Your task to perform on an android device: toggle pop-ups in chrome Image 0: 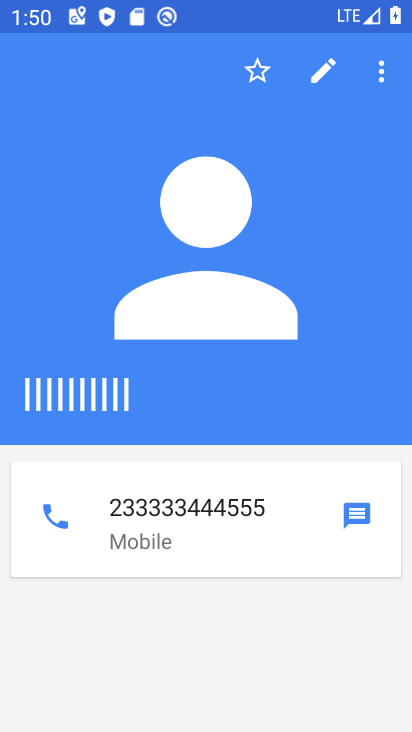
Step 0: press home button
Your task to perform on an android device: toggle pop-ups in chrome Image 1: 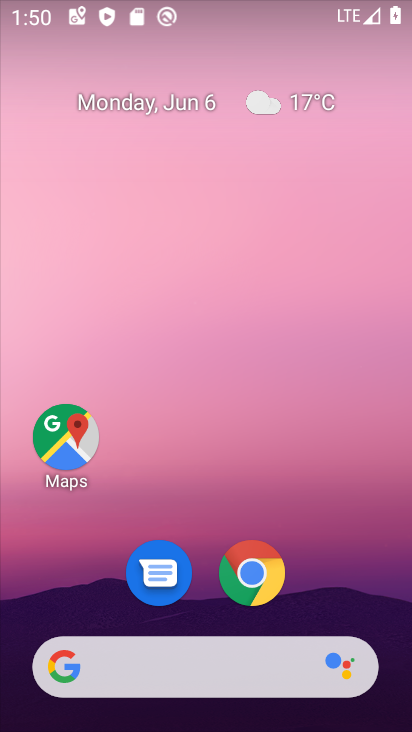
Step 1: drag from (372, 612) to (373, 279)
Your task to perform on an android device: toggle pop-ups in chrome Image 2: 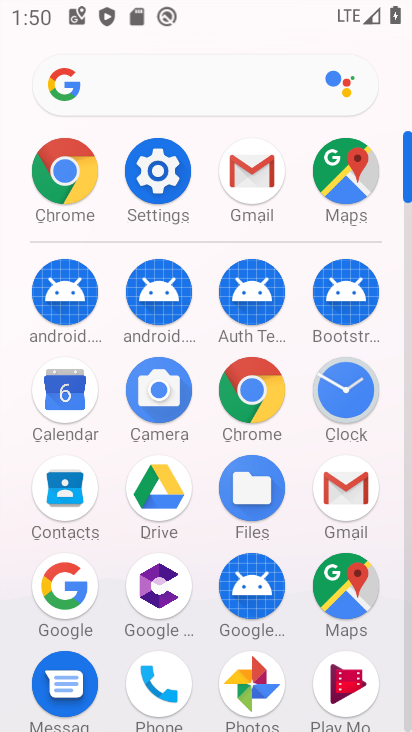
Step 2: click (250, 383)
Your task to perform on an android device: toggle pop-ups in chrome Image 3: 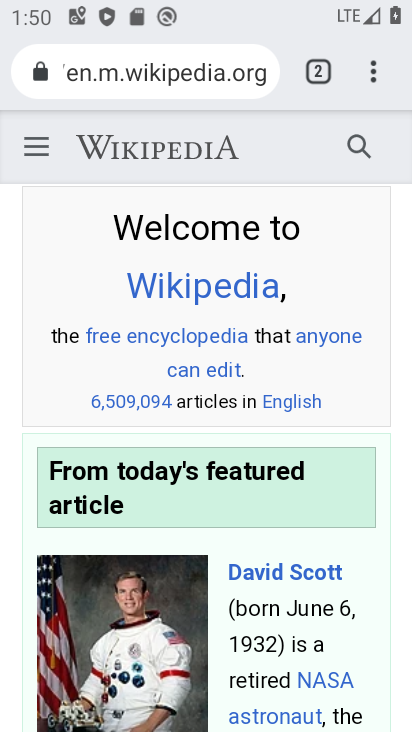
Step 3: click (371, 76)
Your task to perform on an android device: toggle pop-ups in chrome Image 4: 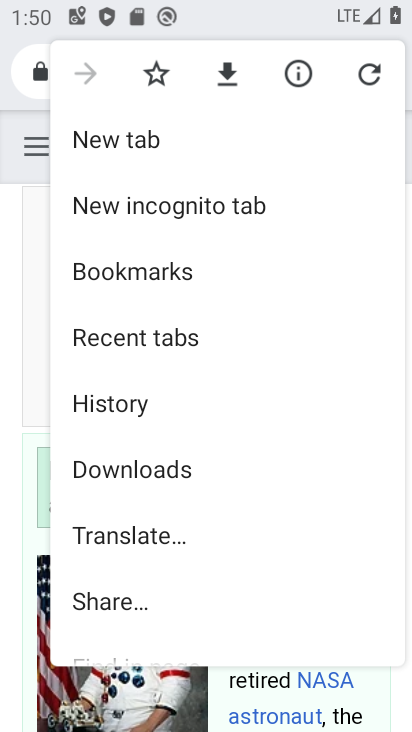
Step 4: drag from (324, 428) to (324, 329)
Your task to perform on an android device: toggle pop-ups in chrome Image 5: 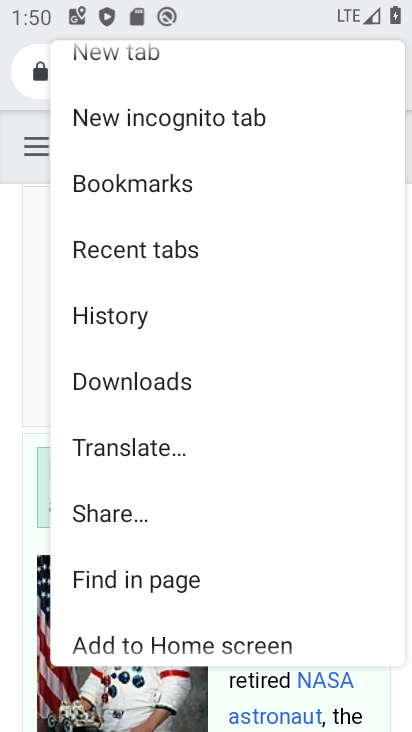
Step 5: drag from (315, 470) to (315, 379)
Your task to perform on an android device: toggle pop-ups in chrome Image 6: 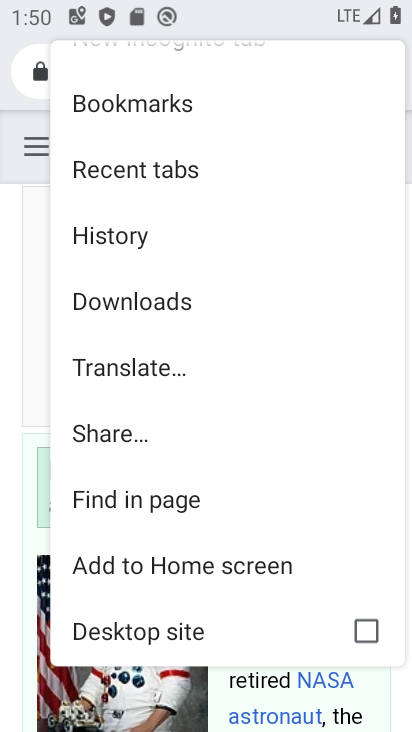
Step 6: drag from (301, 523) to (295, 384)
Your task to perform on an android device: toggle pop-ups in chrome Image 7: 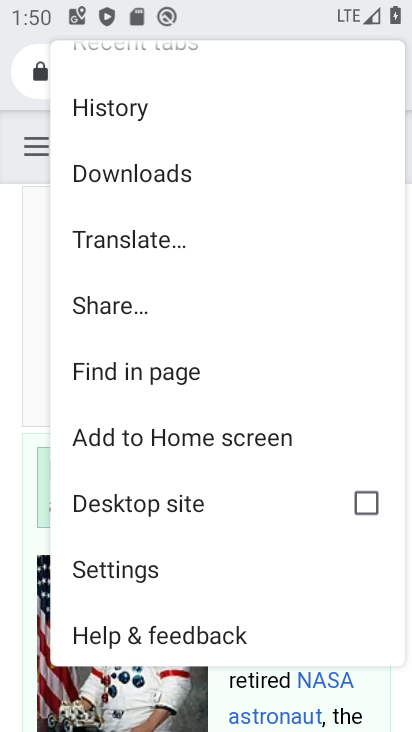
Step 7: click (137, 583)
Your task to perform on an android device: toggle pop-ups in chrome Image 8: 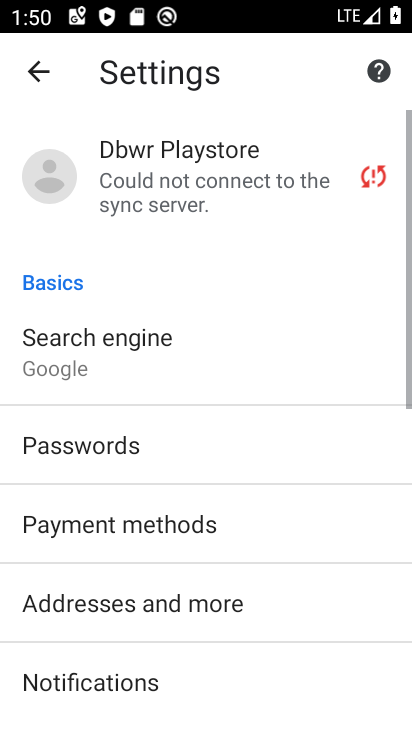
Step 8: drag from (302, 577) to (303, 464)
Your task to perform on an android device: toggle pop-ups in chrome Image 9: 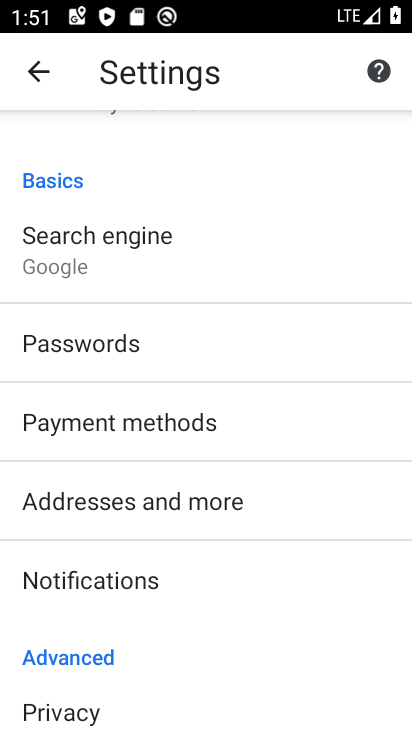
Step 9: drag from (316, 589) to (315, 500)
Your task to perform on an android device: toggle pop-ups in chrome Image 10: 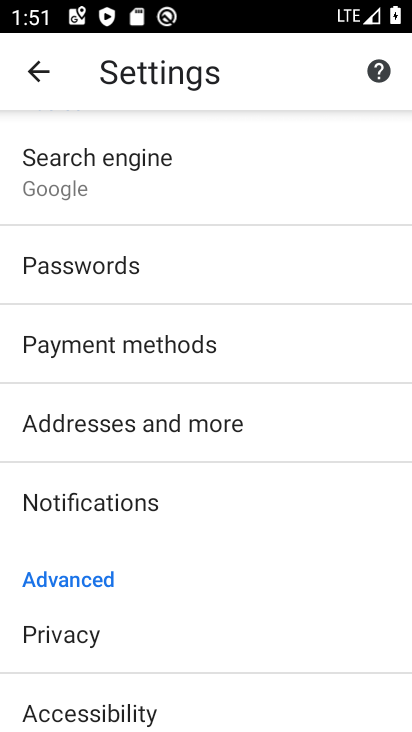
Step 10: drag from (304, 607) to (312, 441)
Your task to perform on an android device: toggle pop-ups in chrome Image 11: 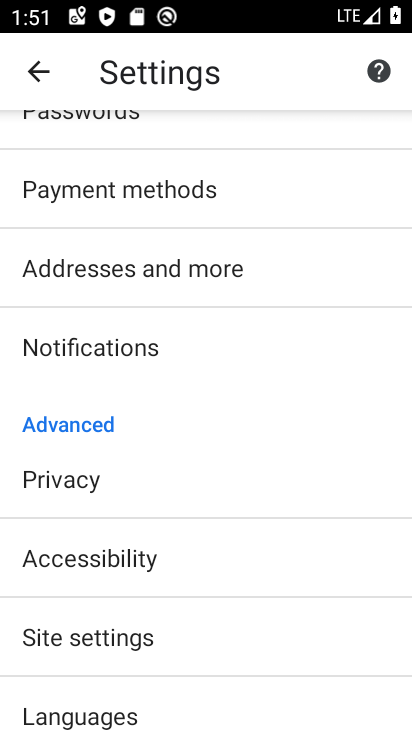
Step 11: click (245, 624)
Your task to perform on an android device: toggle pop-ups in chrome Image 12: 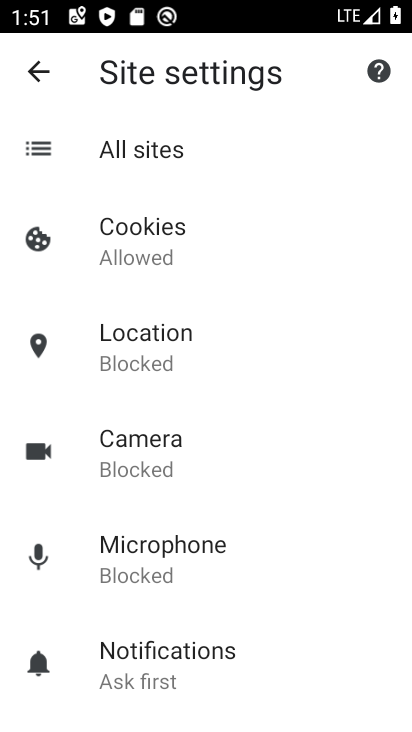
Step 12: drag from (299, 633) to (301, 531)
Your task to perform on an android device: toggle pop-ups in chrome Image 13: 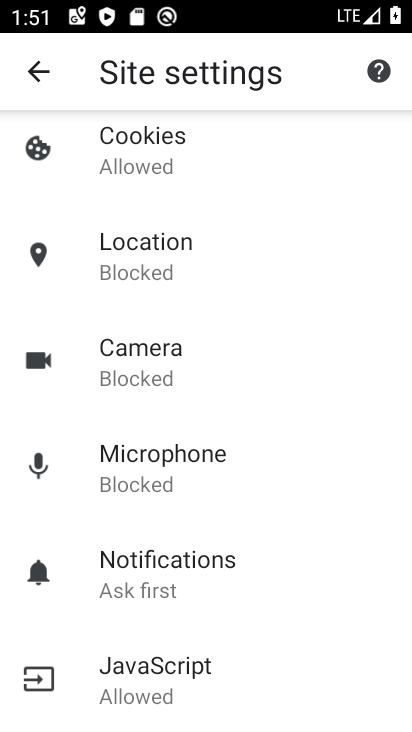
Step 13: drag from (294, 538) to (290, 475)
Your task to perform on an android device: toggle pop-ups in chrome Image 14: 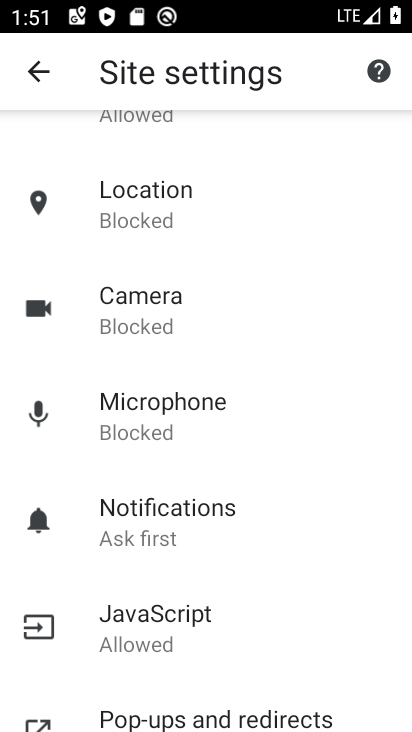
Step 14: drag from (320, 628) to (320, 482)
Your task to perform on an android device: toggle pop-ups in chrome Image 15: 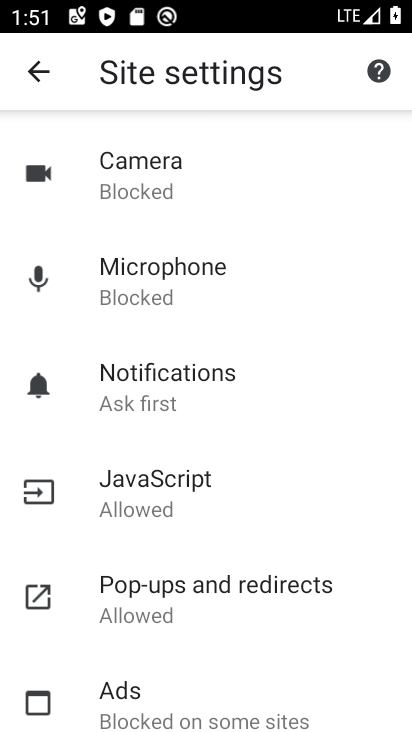
Step 15: click (303, 602)
Your task to perform on an android device: toggle pop-ups in chrome Image 16: 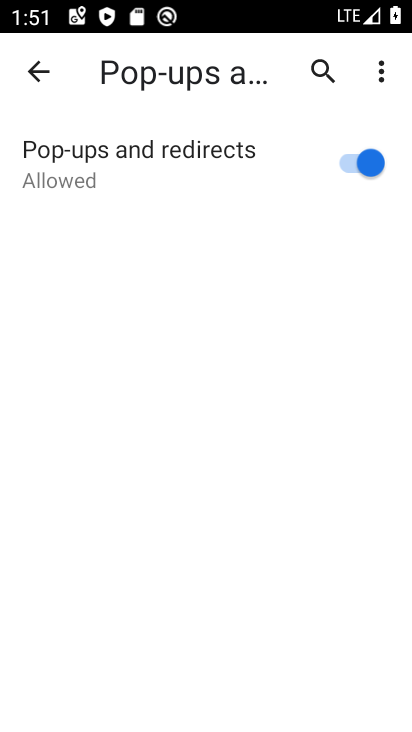
Step 16: click (351, 176)
Your task to perform on an android device: toggle pop-ups in chrome Image 17: 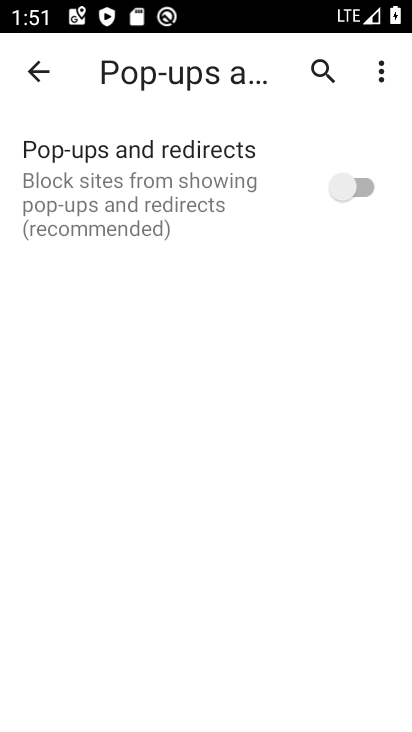
Step 17: task complete